Your task to perform on an android device: open app "Airtel Thanks" (install if not already installed), go to login, and select forgot password Image 0: 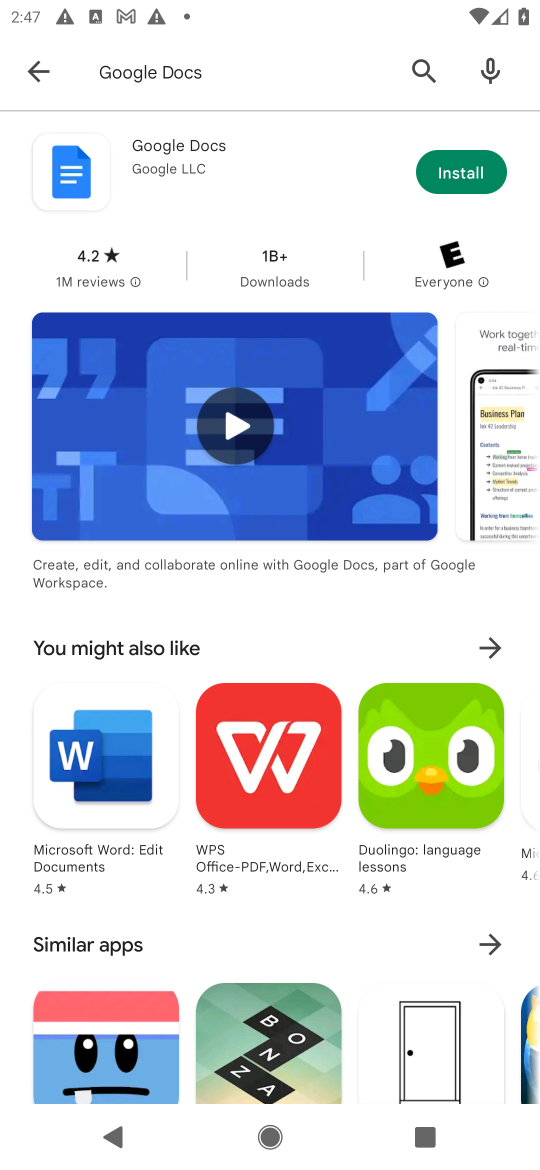
Step 0: press home button
Your task to perform on an android device: open app "Airtel Thanks" (install if not already installed), go to login, and select forgot password Image 1: 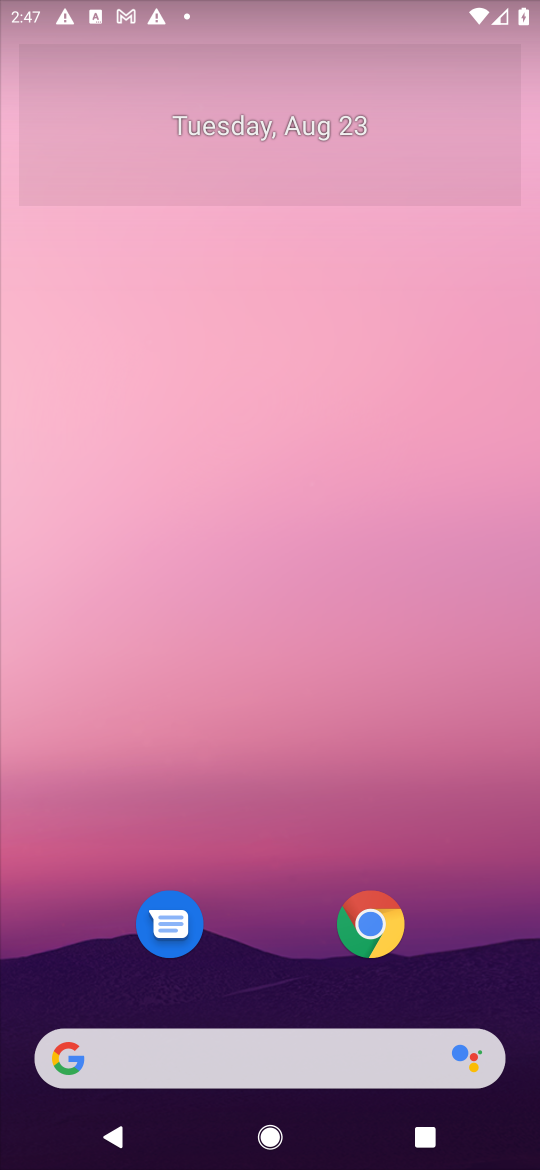
Step 1: drag from (482, 966) to (480, 185)
Your task to perform on an android device: open app "Airtel Thanks" (install if not already installed), go to login, and select forgot password Image 2: 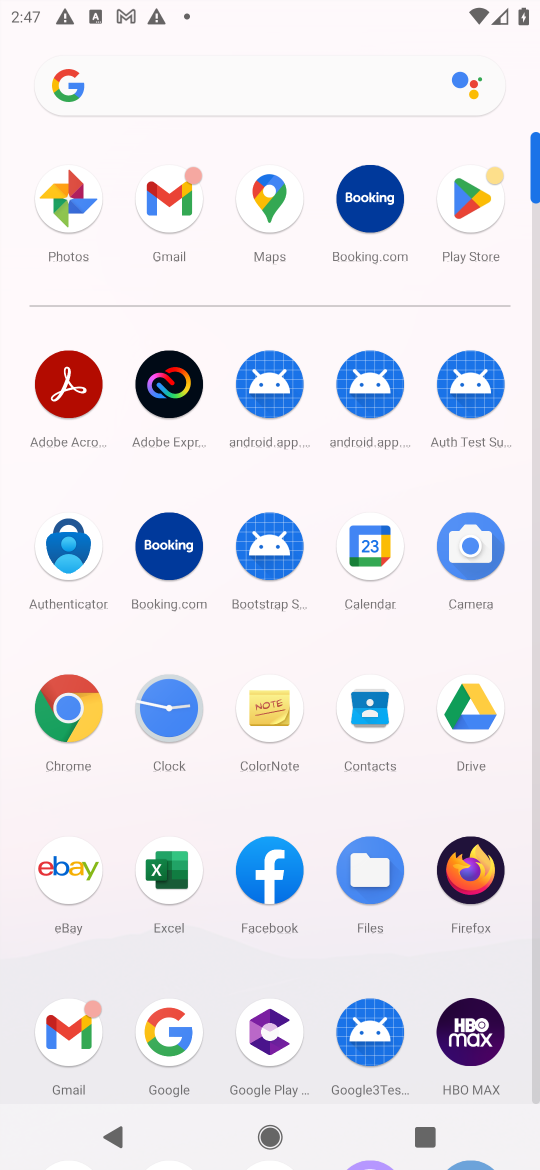
Step 2: click (460, 211)
Your task to perform on an android device: open app "Airtel Thanks" (install if not already installed), go to login, and select forgot password Image 3: 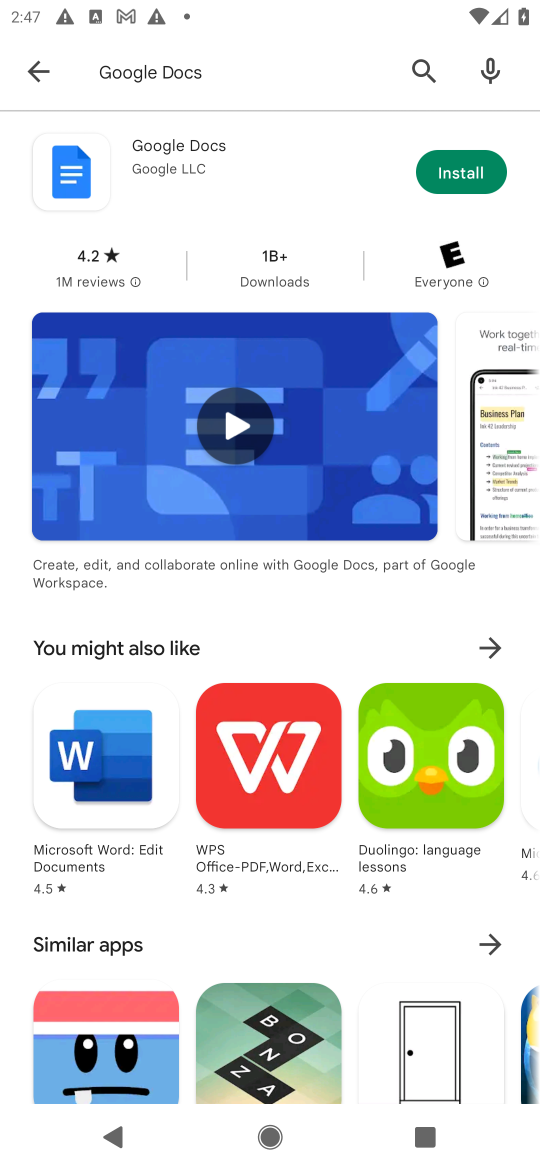
Step 3: press back button
Your task to perform on an android device: open app "Airtel Thanks" (install if not already installed), go to login, and select forgot password Image 4: 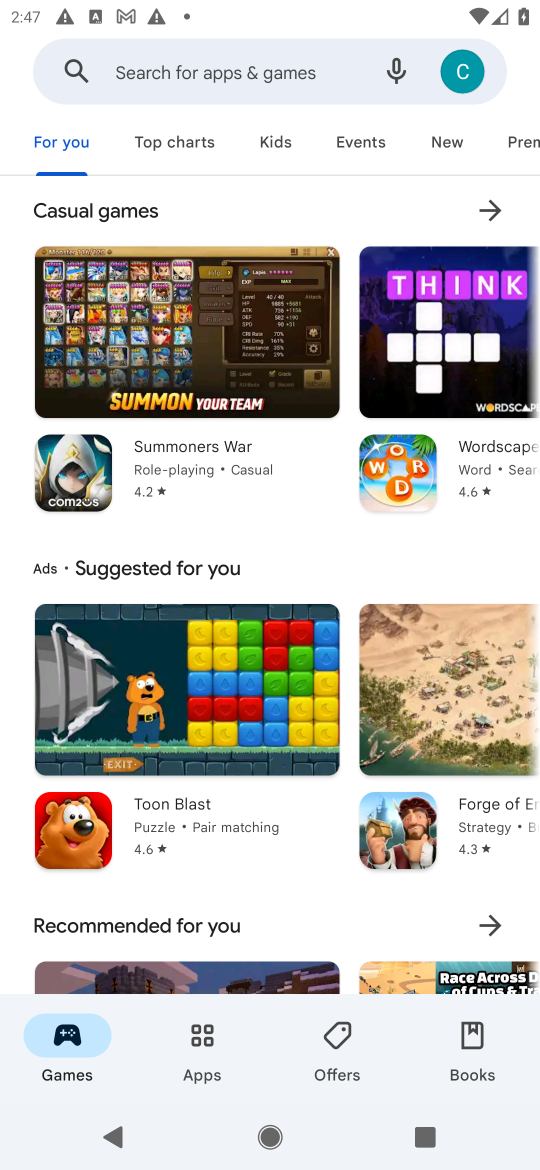
Step 4: click (220, 66)
Your task to perform on an android device: open app "Airtel Thanks" (install if not already installed), go to login, and select forgot password Image 5: 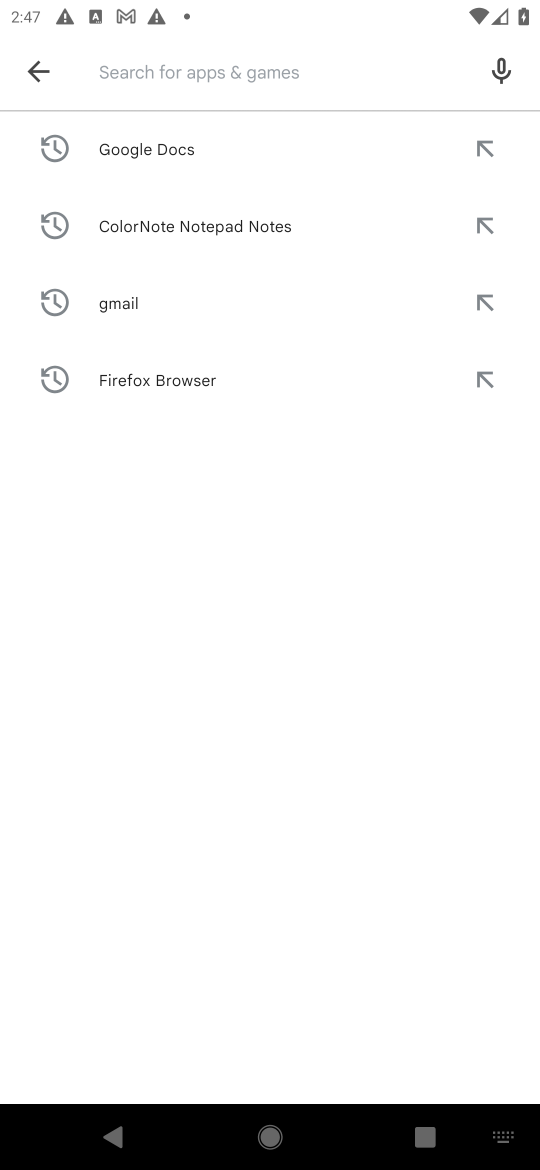
Step 5: type "Airtel Thanks"
Your task to perform on an android device: open app "Airtel Thanks" (install if not already installed), go to login, and select forgot password Image 6: 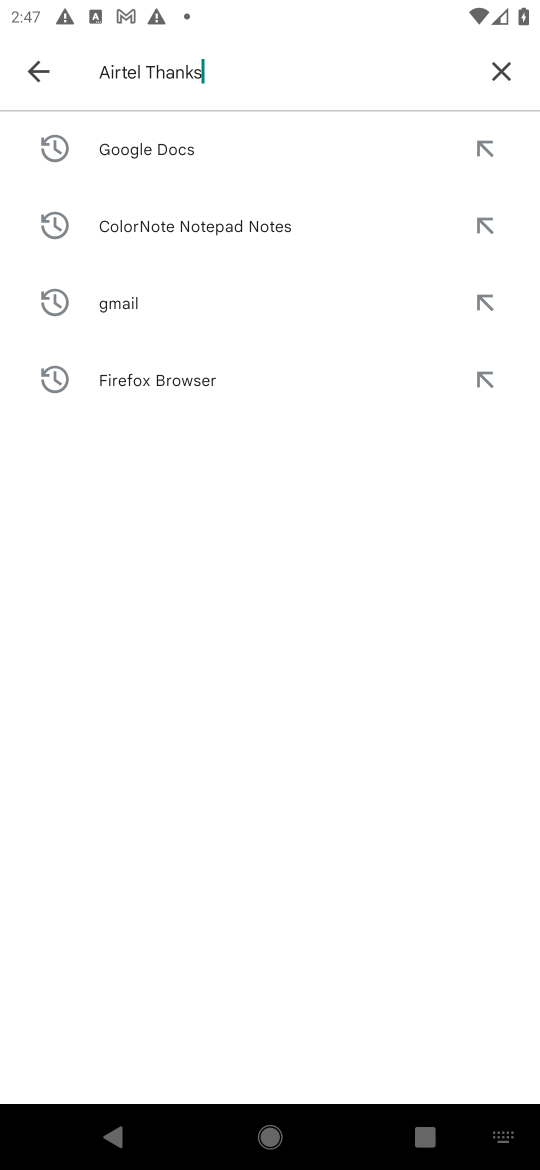
Step 6: press enter
Your task to perform on an android device: open app "Airtel Thanks" (install if not already installed), go to login, and select forgot password Image 7: 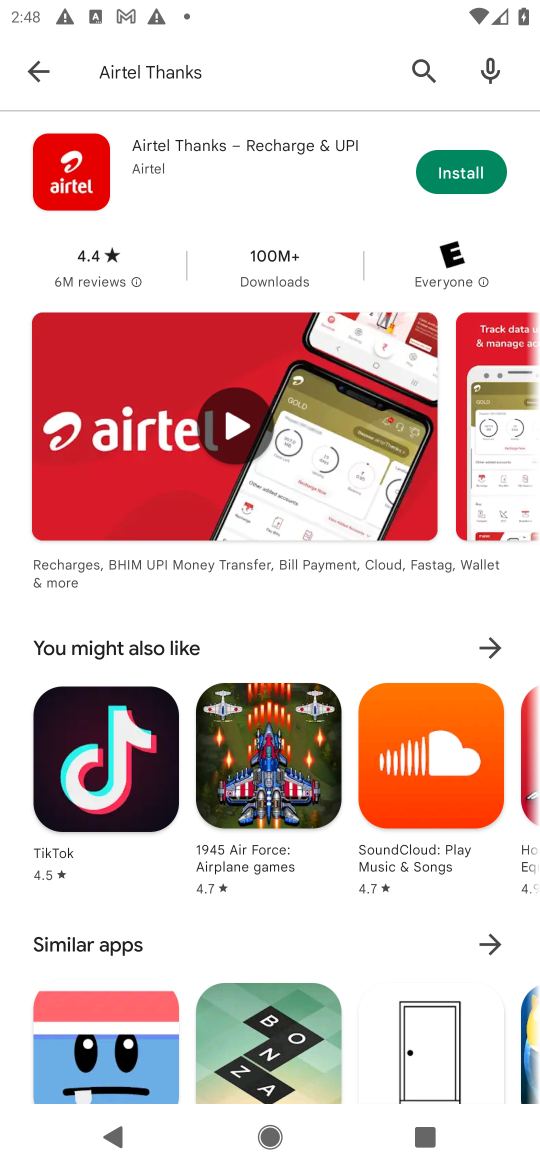
Step 7: click (467, 166)
Your task to perform on an android device: open app "Airtel Thanks" (install if not already installed), go to login, and select forgot password Image 8: 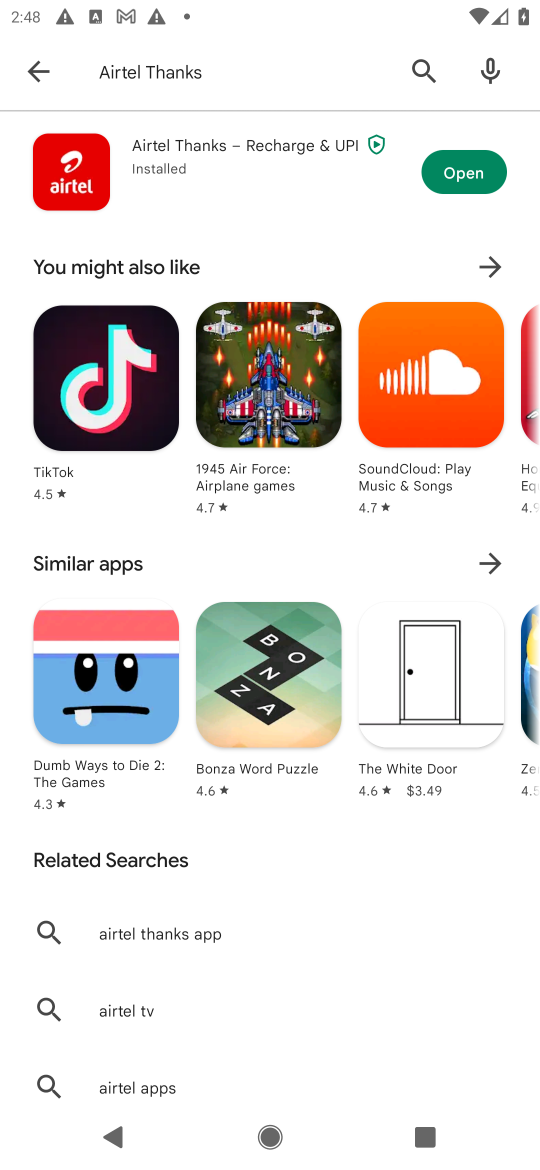
Step 8: click (469, 176)
Your task to perform on an android device: open app "Airtel Thanks" (install if not already installed), go to login, and select forgot password Image 9: 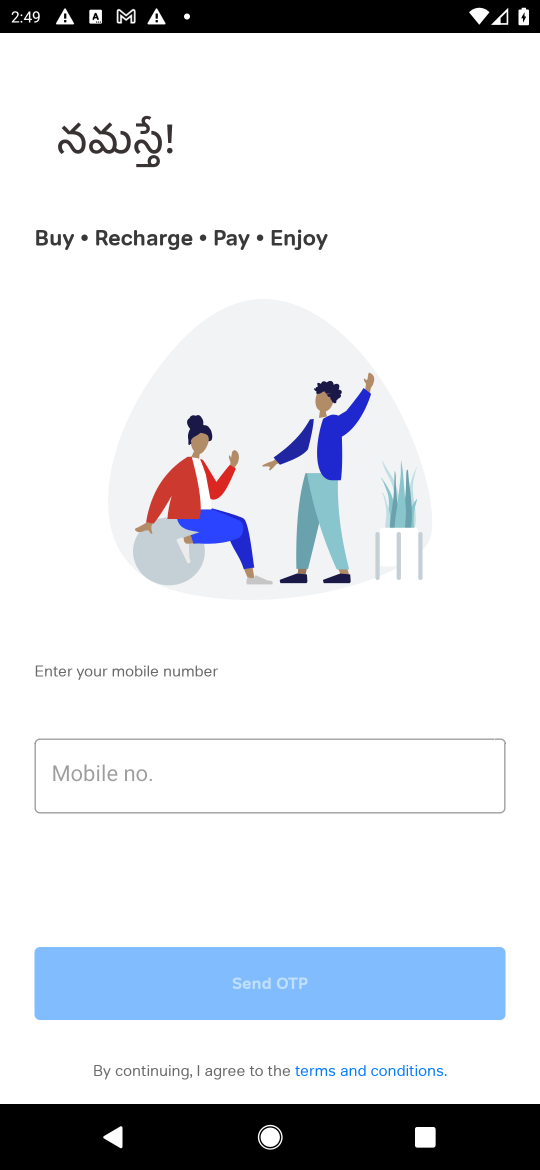
Step 9: task complete